Your task to perform on an android device: Open Chrome and go to the settings page Image 0: 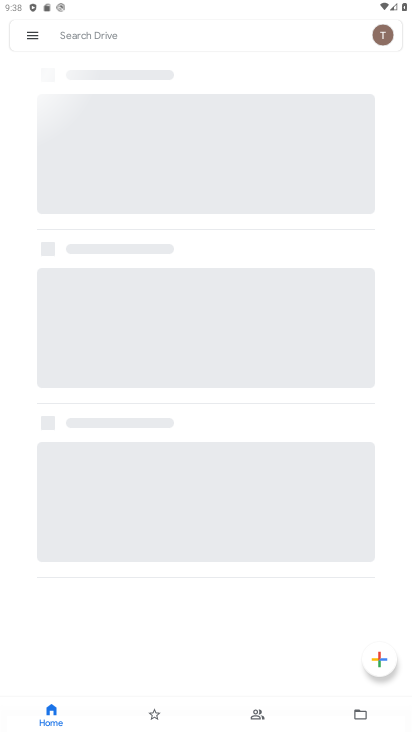
Step 0: drag from (314, 635) to (289, 376)
Your task to perform on an android device: Open Chrome and go to the settings page Image 1: 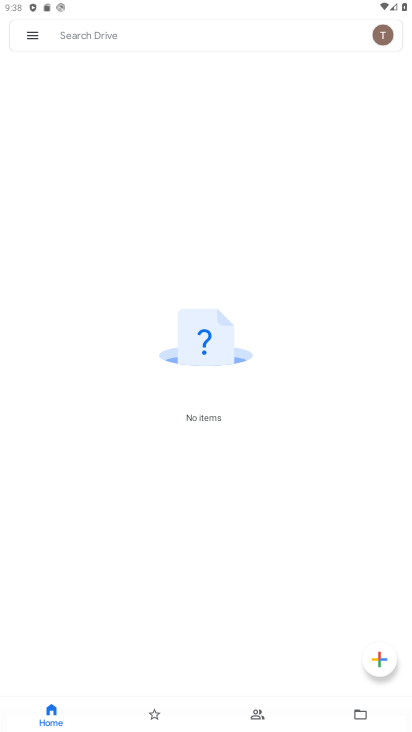
Step 1: press home button
Your task to perform on an android device: Open Chrome and go to the settings page Image 2: 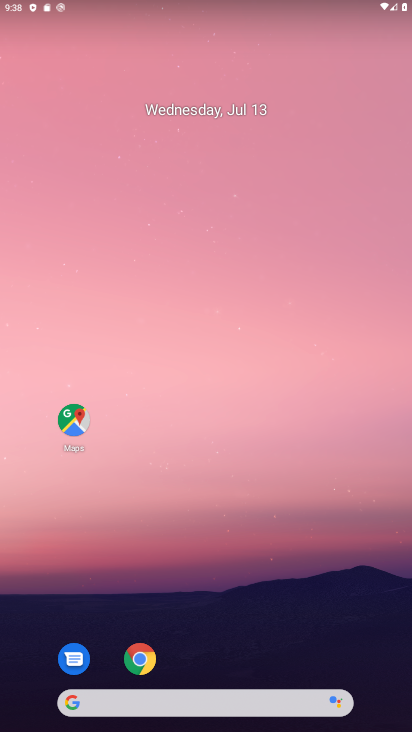
Step 2: click (141, 661)
Your task to perform on an android device: Open Chrome and go to the settings page Image 3: 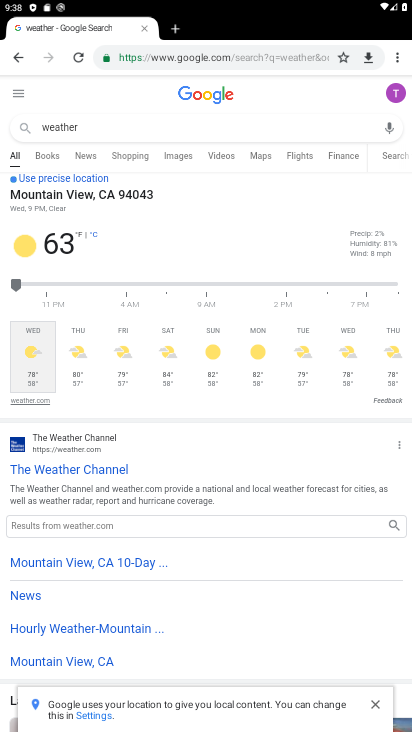
Step 3: task complete